Your task to perform on an android device: Open the calendar app, open the side menu, and click the "Day" option Image 0: 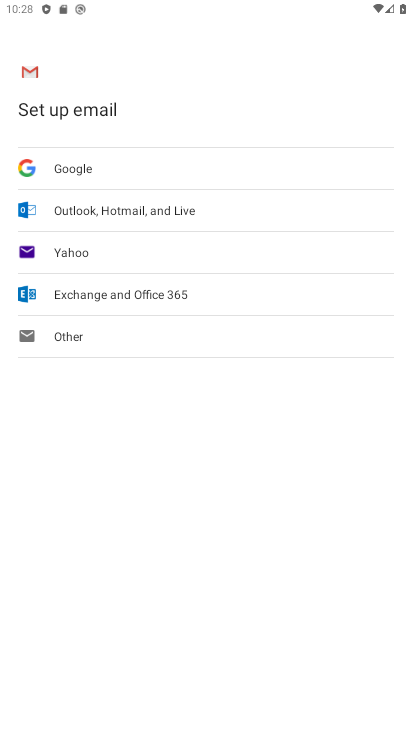
Step 0: press back button
Your task to perform on an android device: Open the calendar app, open the side menu, and click the "Day" option Image 1: 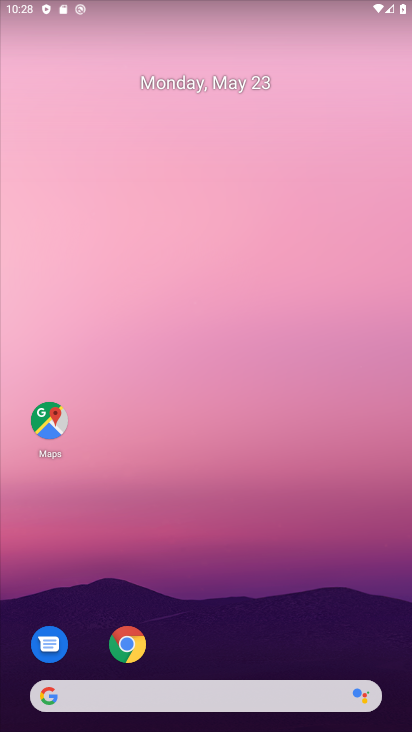
Step 1: drag from (215, 589) to (121, 162)
Your task to perform on an android device: Open the calendar app, open the side menu, and click the "Day" option Image 2: 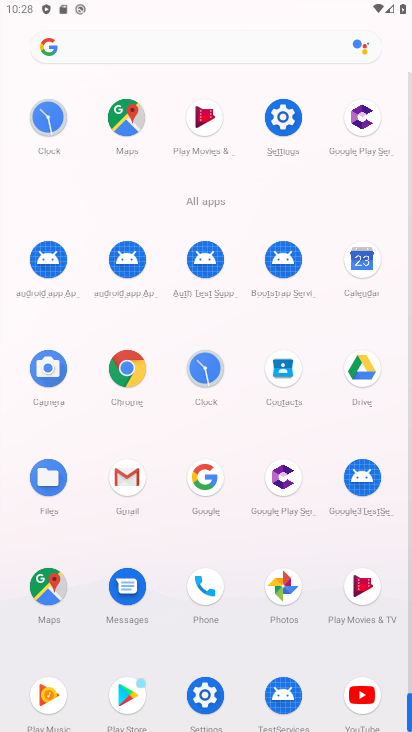
Step 2: click (366, 258)
Your task to perform on an android device: Open the calendar app, open the side menu, and click the "Day" option Image 3: 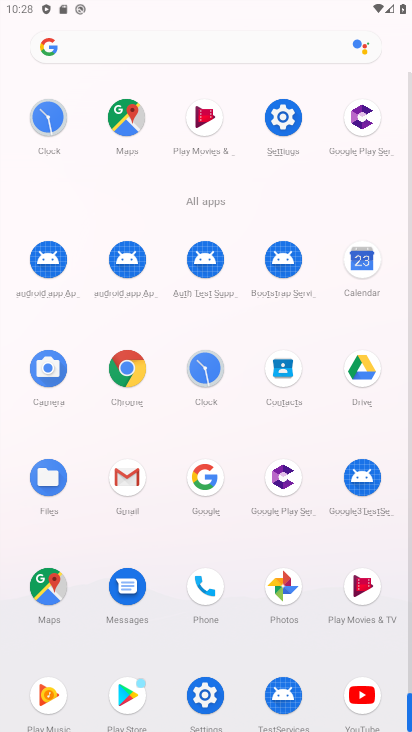
Step 3: click (365, 258)
Your task to perform on an android device: Open the calendar app, open the side menu, and click the "Day" option Image 4: 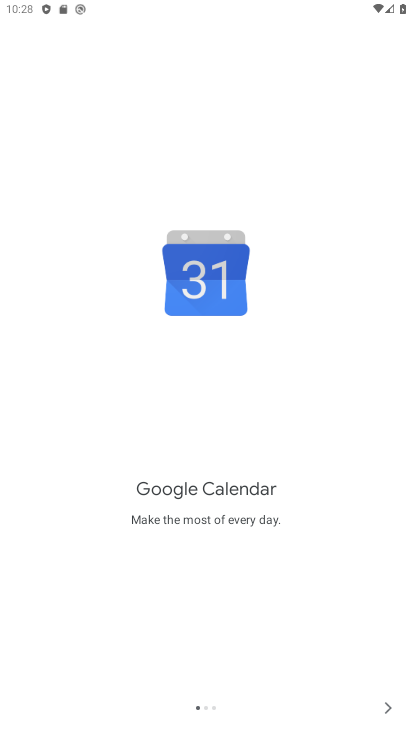
Step 4: click (381, 706)
Your task to perform on an android device: Open the calendar app, open the side menu, and click the "Day" option Image 5: 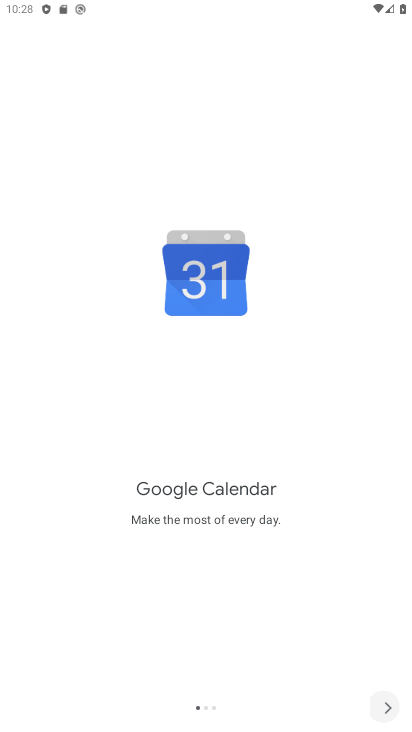
Step 5: click (382, 705)
Your task to perform on an android device: Open the calendar app, open the side menu, and click the "Day" option Image 6: 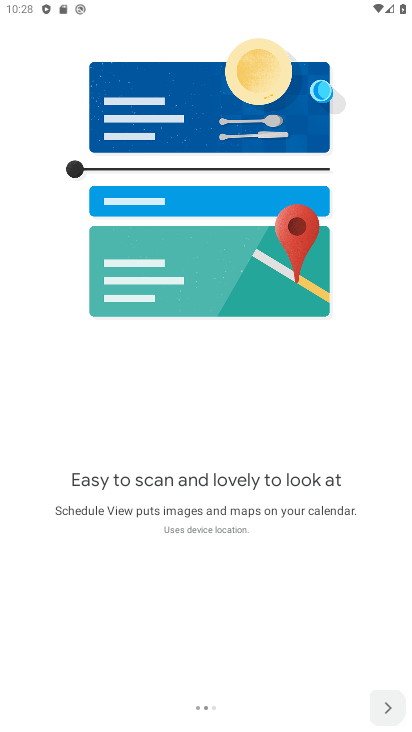
Step 6: click (382, 705)
Your task to perform on an android device: Open the calendar app, open the side menu, and click the "Day" option Image 7: 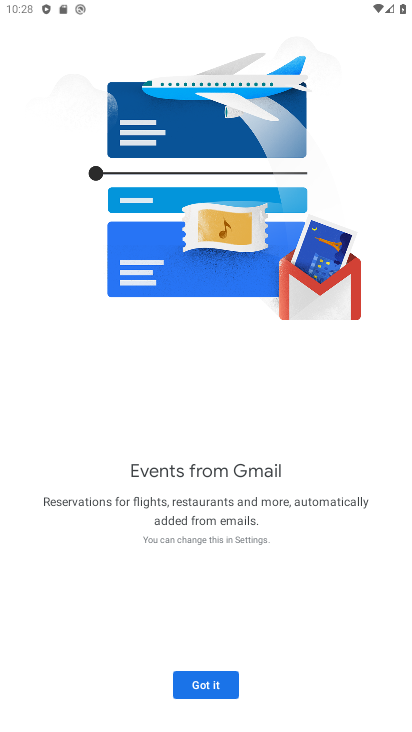
Step 7: click (382, 705)
Your task to perform on an android device: Open the calendar app, open the side menu, and click the "Day" option Image 8: 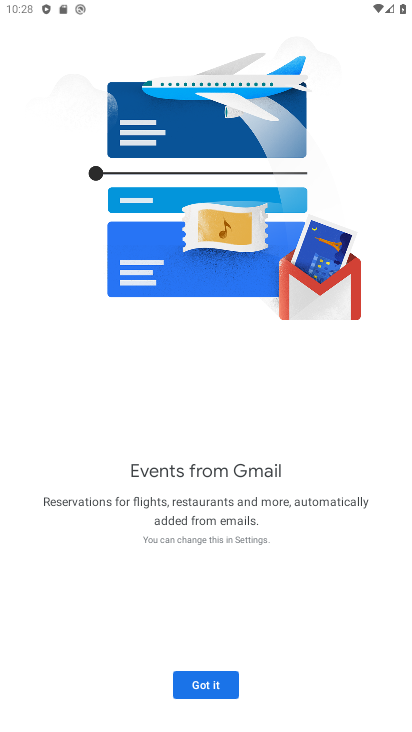
Step 8: click (223, 694)
Your task to perform on an android device: Open the calendar app, open the side menu, and click the "Day" option Image 9: 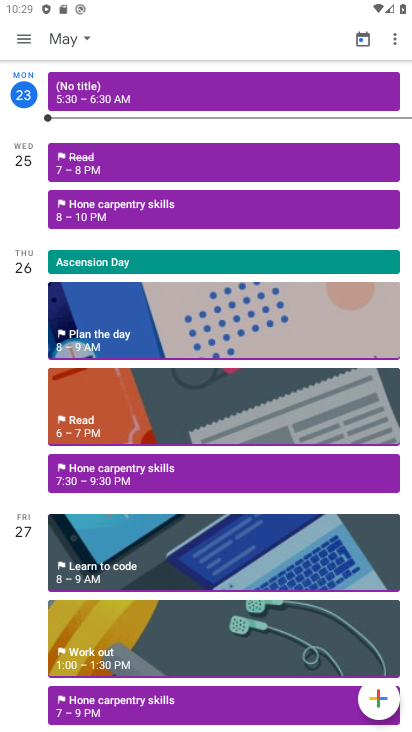
Step 9: click (23, 40)
Your task to perform on an android device: Open the calendar app, open the side menu, and click the "Day" option Image 10: 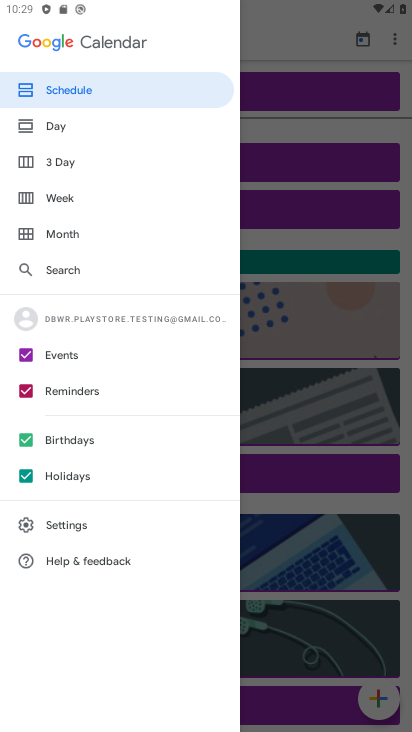
Step 10: click (26, 40)
Your task to perform on an android device: Open the calendar app, open the side menu, and click the "Day" option Image 11: 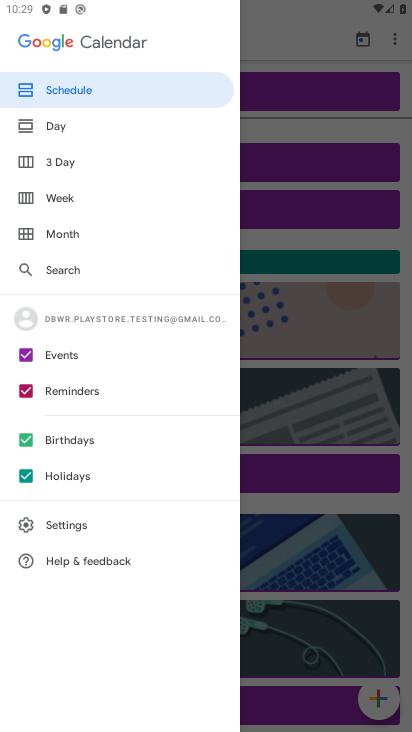
Step 11: click (46, 124)
Your task to perform on an android device: Open the calendar app, open the side menu, and click the "Day" option Image 12: 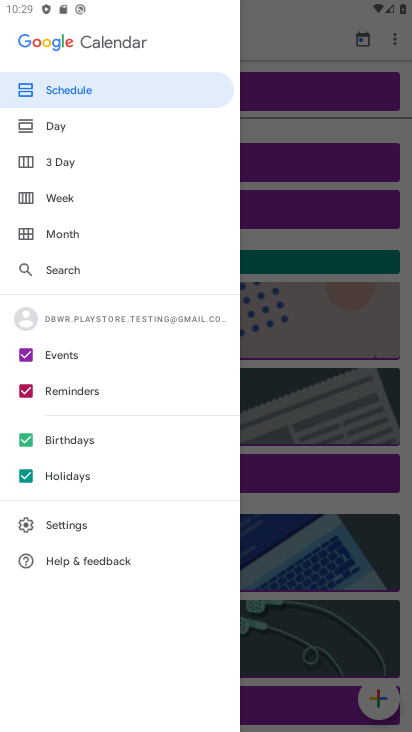
Step 12: click (47, 124)
Your task to perform on an android device: Open the calendar app, open the side menu, and click the "Day" option Image 13: 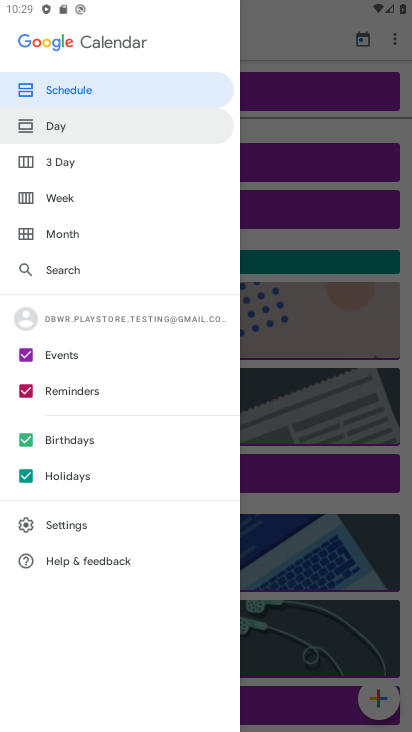
Step 13: click (48, 125)
Your task to perform on an android device: Open the calendar app, open the side menu, and click the "Day" option Image 14: 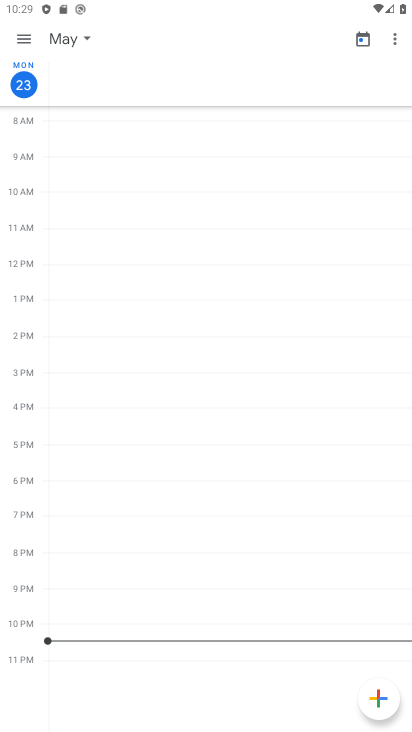
Step 14: click (28, 46)
Your task to perform on an android device: Open the calendar app, open the side menu, and click the "Day" option Image 15: 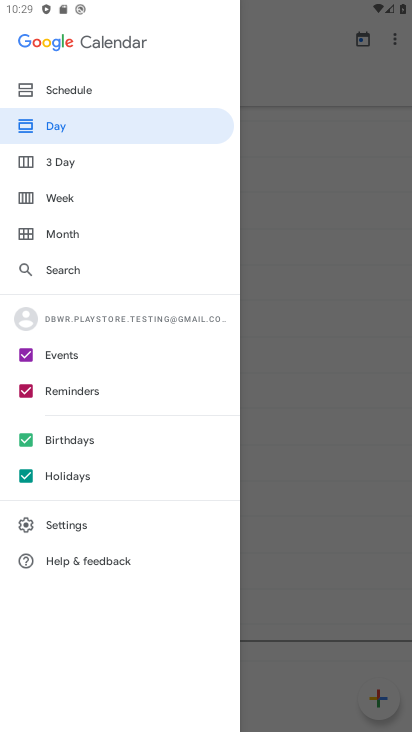
Step 15: click (70, 133)
Your task to perform on an android device: Open the calendar app, open the side menu, and click the "Day" option Image 16: 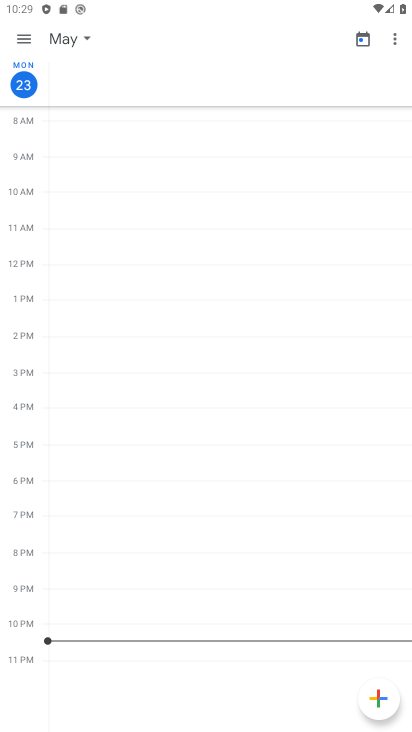
Step 16: task complete